Your task to perform on an android device: Is it going to rain this weekend? Image 0: 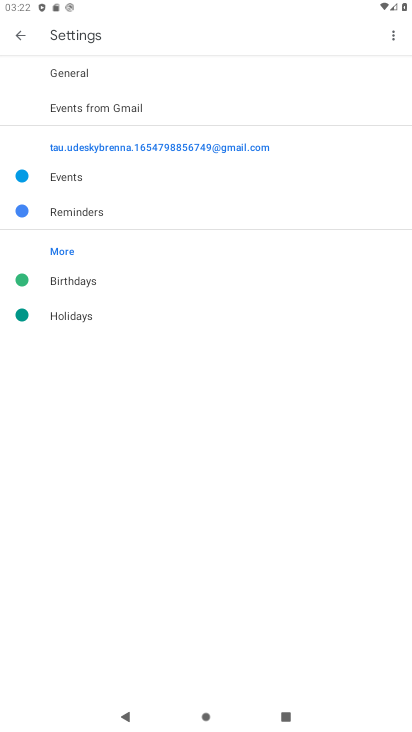
Step 0: press home button
Your task to perform on an android device: Is it going to rain this weekend? Image 1: 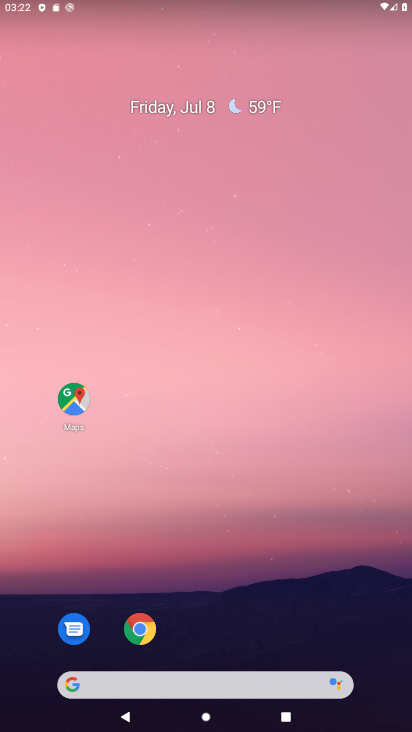
Step 1: click (179, 681)
Your task to perform on an android device: Is it going to rain this weekend? Image 2: 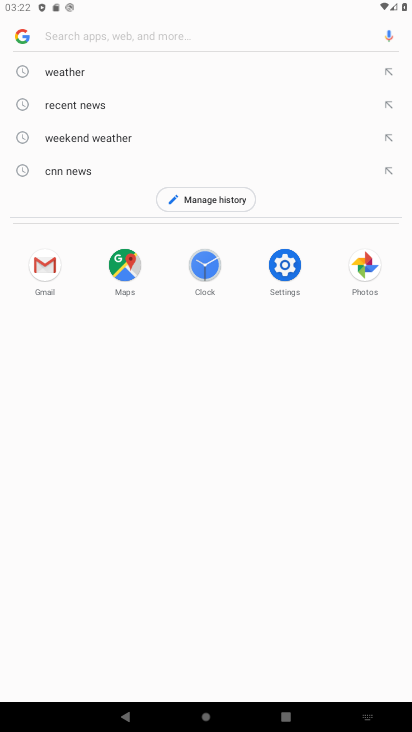
Step 2: click (80, 63)
Your task to perform on an android device: Is it going to rain this weekend? Image 3: 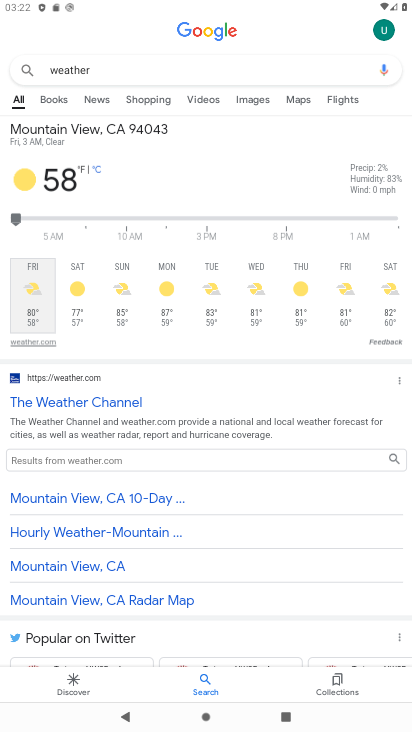
Step 3: press back button
Your task to perform on an android device: Is it going to rain this weekend? Image 4: 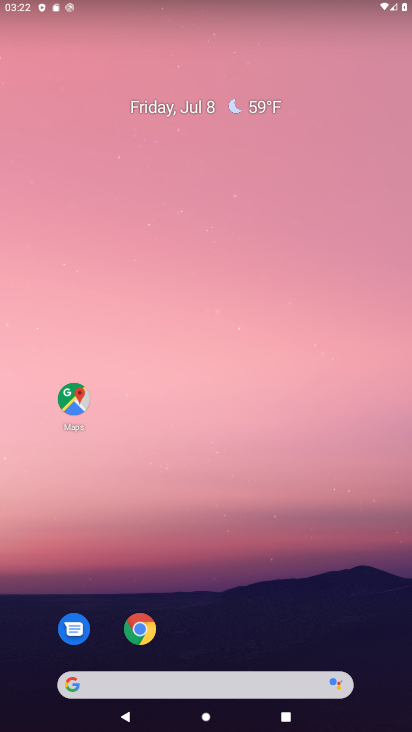
Step 4: click (180, 679)
Your task to perform on an android device: Is it going to rain this weekend? Image 5: 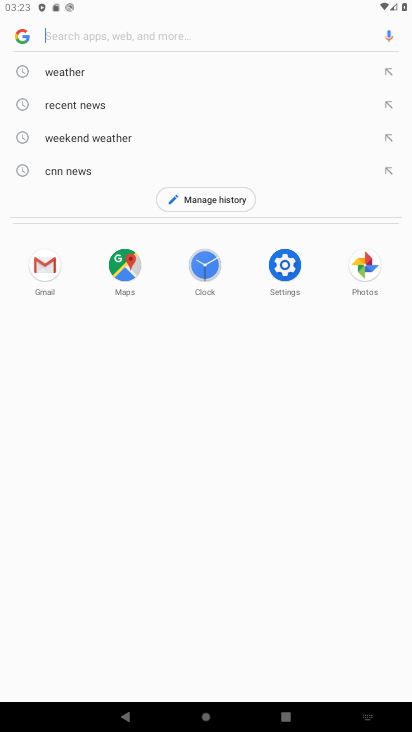
Step 5: type "Is it going to rain this weekend?"
Your task to perform on an android device: Is it going to rain this weekend? Image 6: 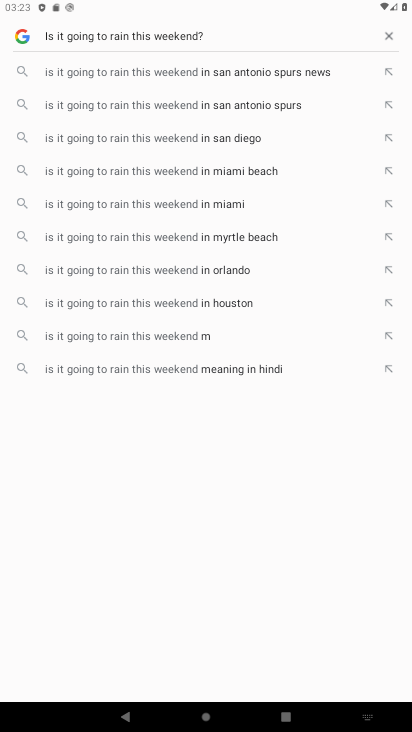
Step 6: click (196, 335)
Your task to perform on an android device: Is it going to rain this weekend? Image 7: 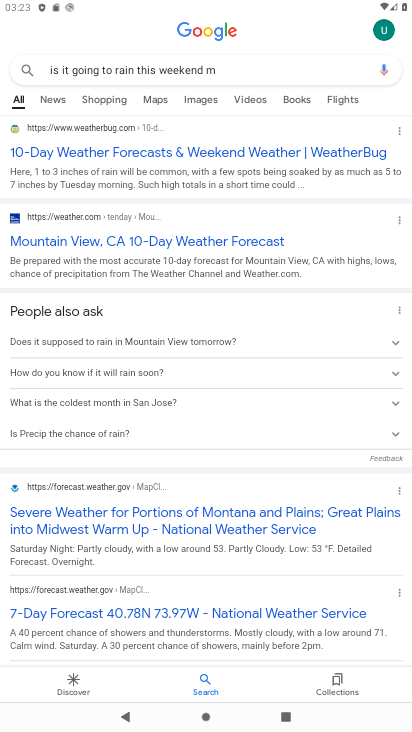
Step 7: click (134, 153)
Your task to perform on an android device: Is it going to rain this weekend? Image 8: 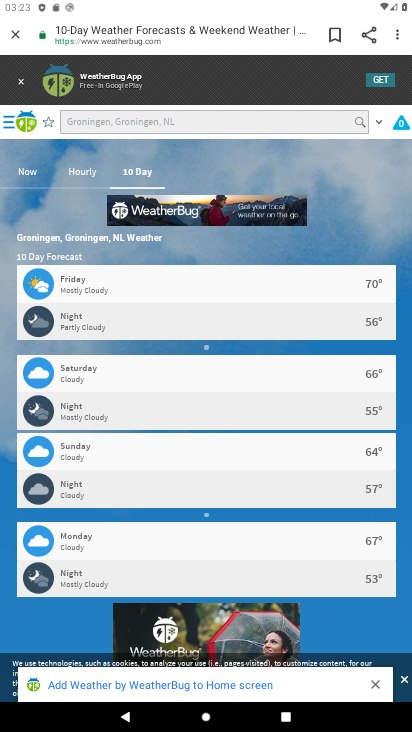
Step 8: task complete